Your task to perform on an android device: toggle notifications settings in the gmail app Image 0: 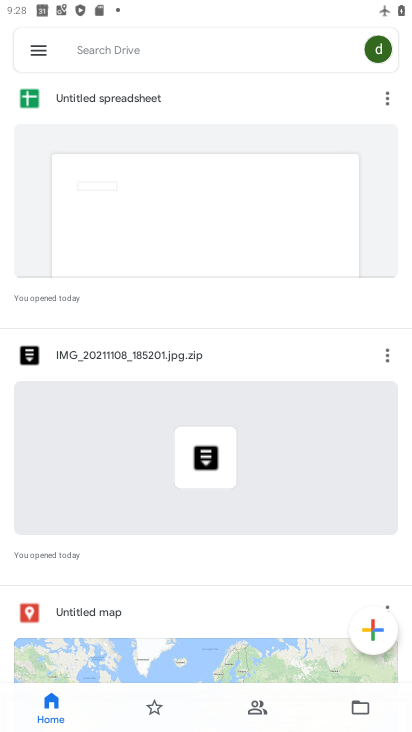
Step 0: press home button
Your task to perform on an android device: toggle notifications settings in the gmail app Image 1: 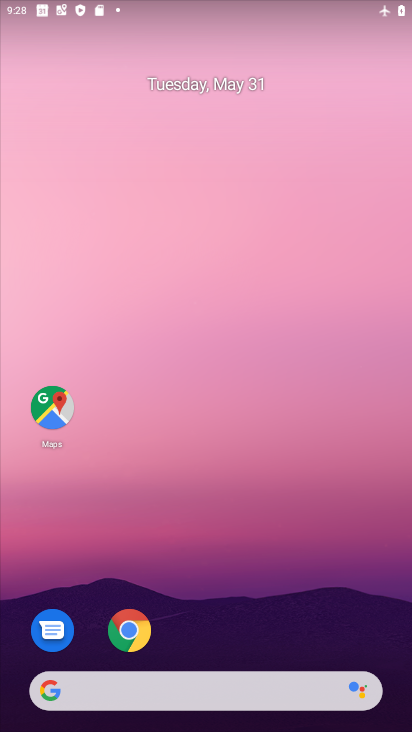
Step 1: drag from (229, 617) to (227, 249)
Your task to perform on an android device: toggle notifications settings in the gmail app Image 2: 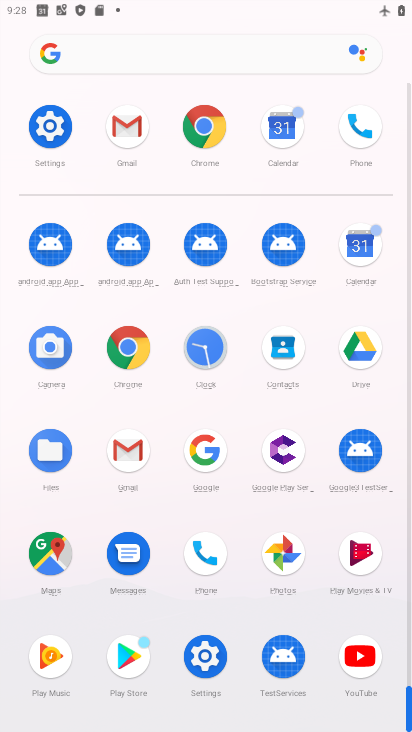
Step 2: click (126, 127)
Your task to perform on an android device: toggle notifications settings in the gmail app Image 3: 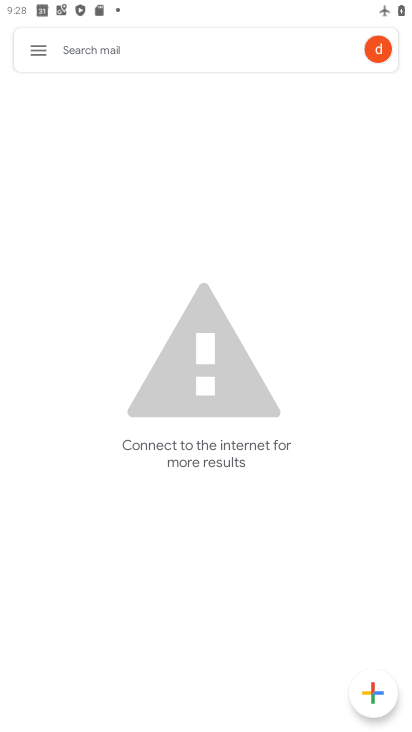
Step 3: click (35, 48)
Your task to perform on an android device: toggle notifications settings in the gmail app Image 4: 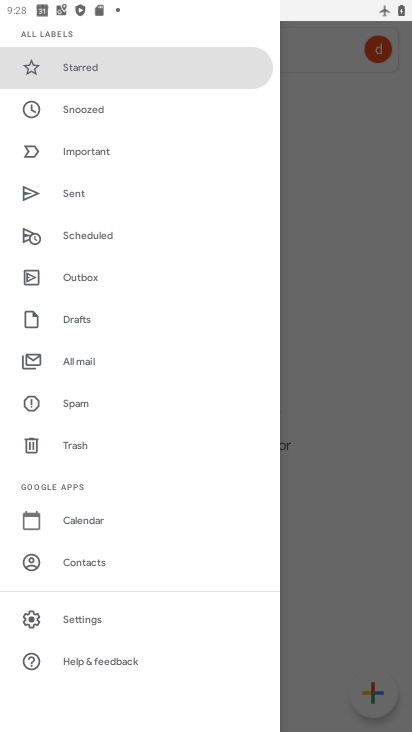
Step 4: click (95, 609)
Your task to perform on an android device: toggle notifications settings in the gmail app Image 5: 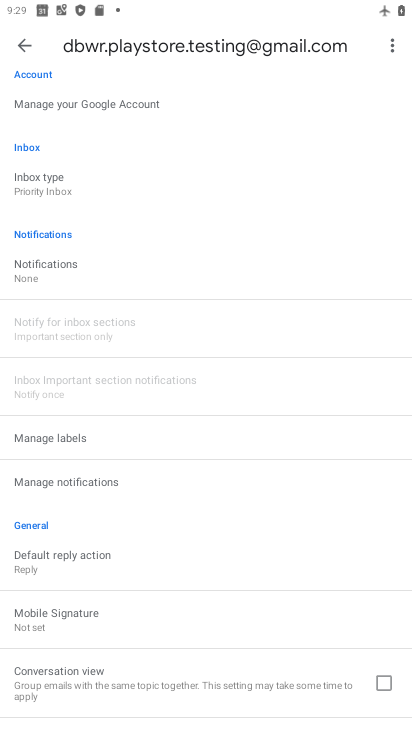
Step 5: click (83, 263)
Your task to perform on an android device: toggle notifications settings in the gmail app Image 6: 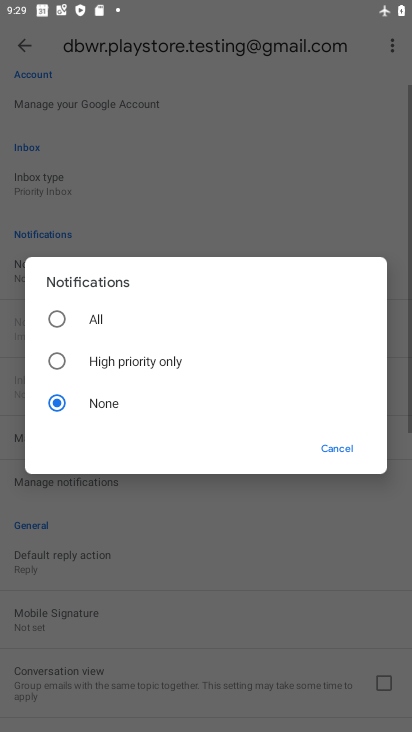
Step 6: click (91, 323)
Your task to perform on an android device: toggle notifications settings in the gmail app Image 7: 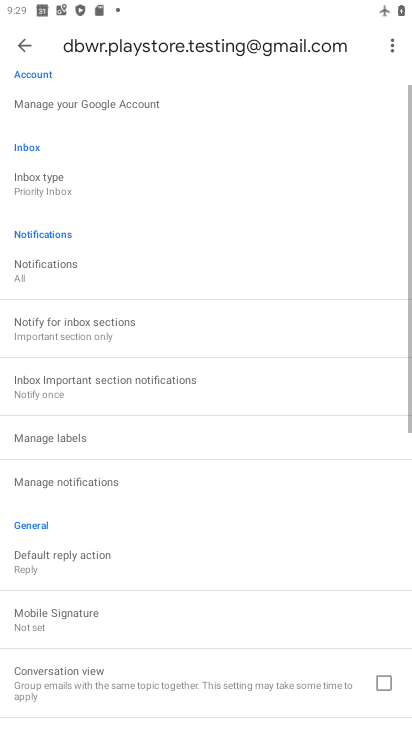
Step 7: task complete